Your task to perform on an android device: Search for hotels in Mexico city Image 0: 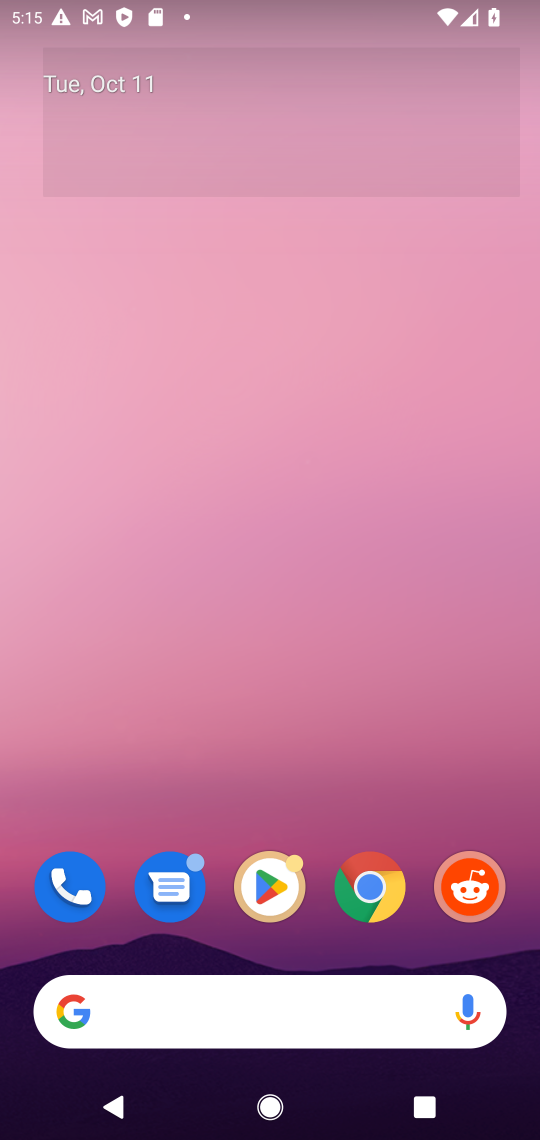
Step 0: click (353, 1008)
Your task to perform on an android device: Search for hotels in Mexico city Image 1: 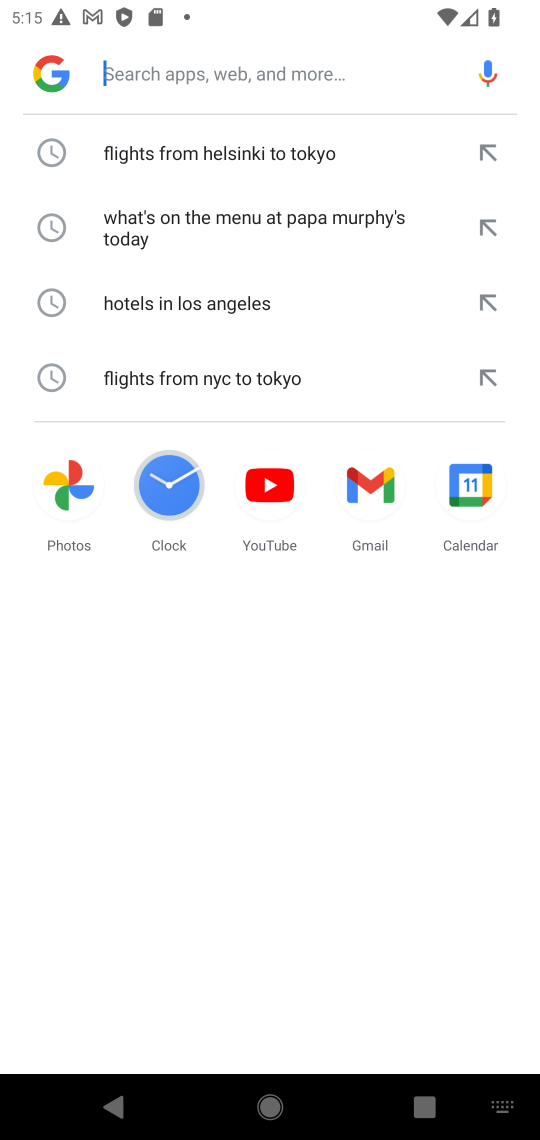
Step 1: type "hotels in Mexico city"
Your task to perform on an android device: Search for hotels in Mexico city Image 2: 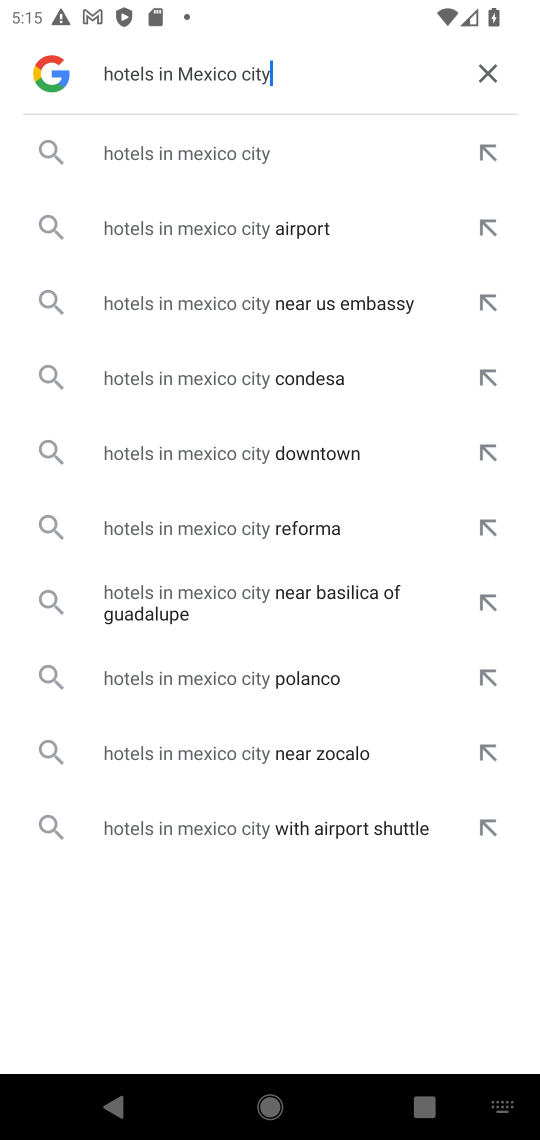
Step 2: click (161, 155)
Your task to perform on an android device: Search for hotels in Mexico city Image 3: 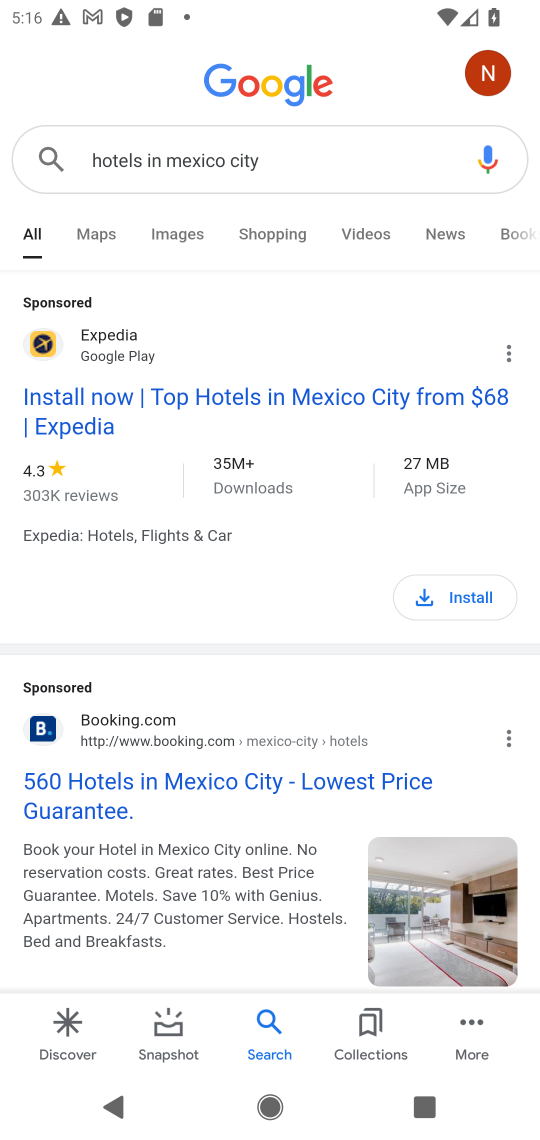
Step 3: click (371, 790)
Your task to perform on an android device: Search for hotels in Mexico city Image 4: 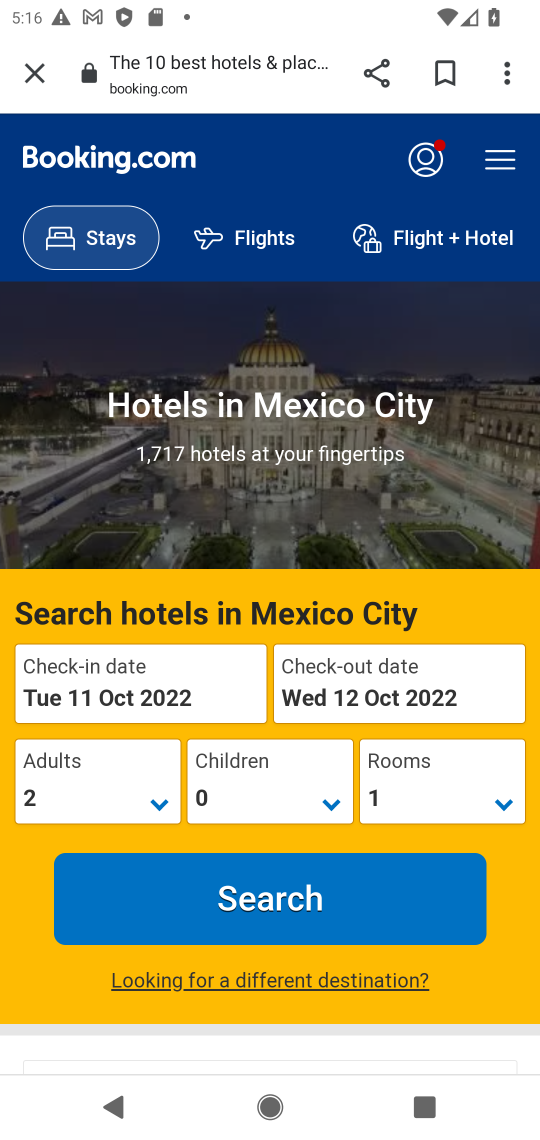
Step 4: task complete